Your task to perform on an android device: star an email in the gmail app Image 0: 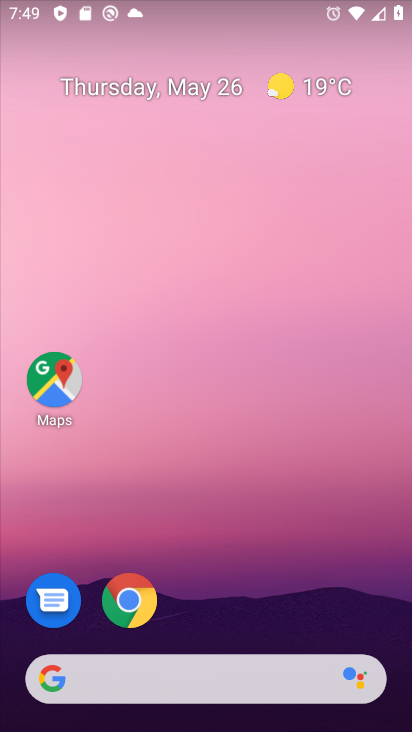
Step 0: press home button
Your task to perform on an android device: star an email in the gmail app Image 1: 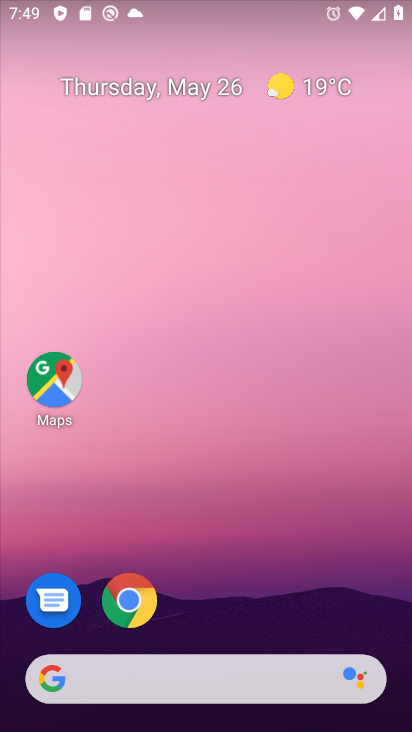
Step 1: click (51, 380)
Your task to perform on an android device: star an email in the gmail app Image 2: 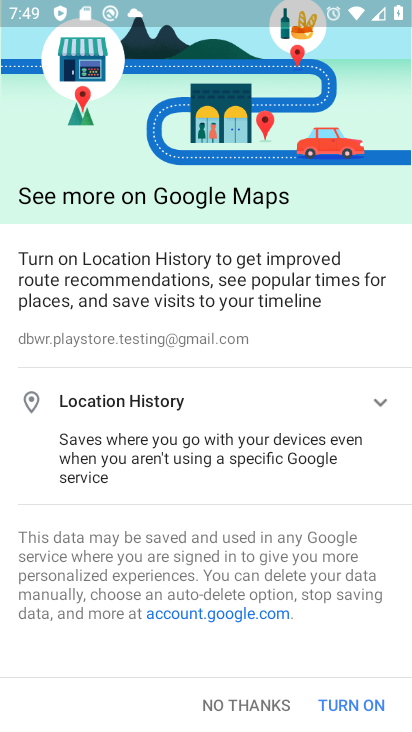
Step 2: press home button
Your task to perform on an android device: star an email in the gmail app Image 3: 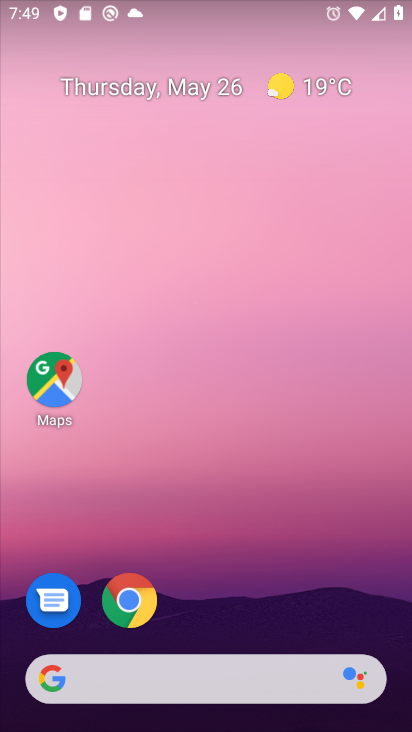
Step 3: drag from (237, 612) to (270, 191)
Your task to perform on an android device: star an email in the gmail app Image 4: 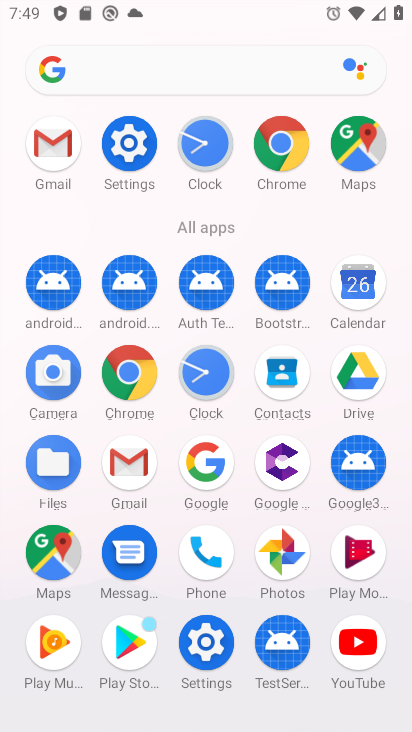
Step 4: click (56, 152)
Your task to perform on an android device: star an email in the gmail app Image 5: 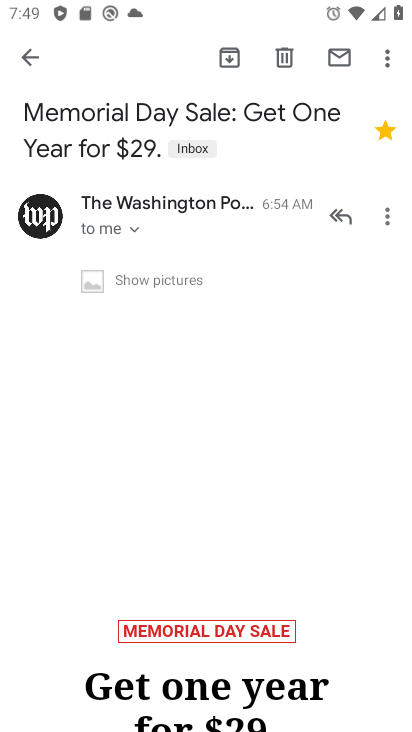
Step 5: click (32, 59)
Your task to perform on an android device: star an email in the gmail app Image 6: 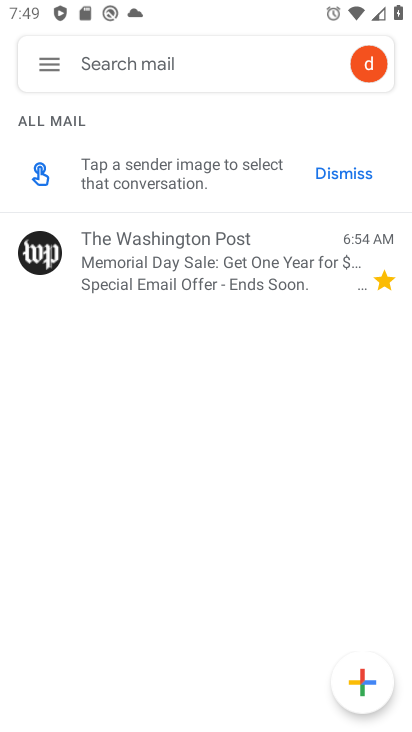
Step 6: click (45, 70)
Your task to perform on an android device: star an email in the gmail app Image 7: 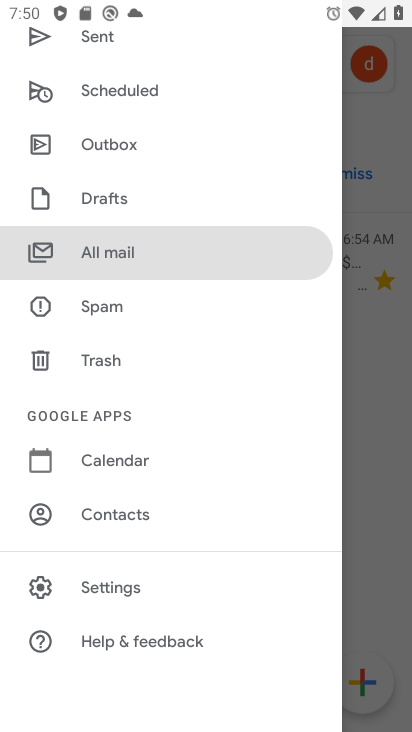
Step 7: click (134, 250)
Your task to perform on an android device: star an email in the gmail app Image 8: 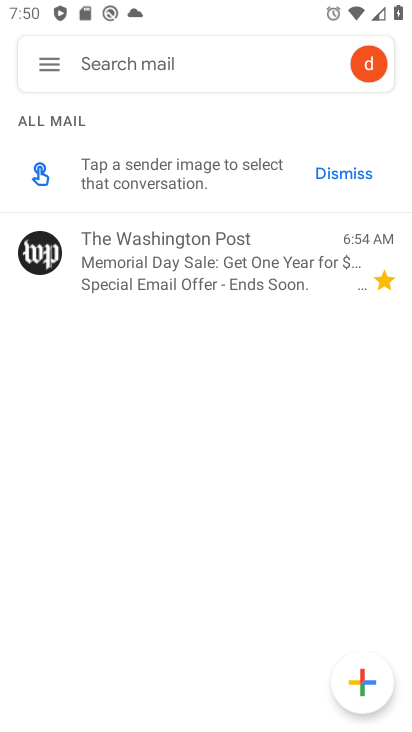
Step 8: click (388, 284)
Your task to perform on an android device: star an email in the gmail app Image 9: 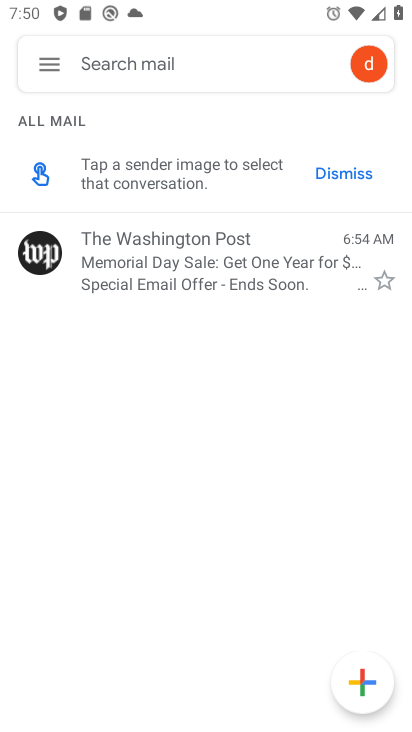
Step 9: click (386, 284)
Your task to perform on an android device: star an email in the gmail app Image 10: 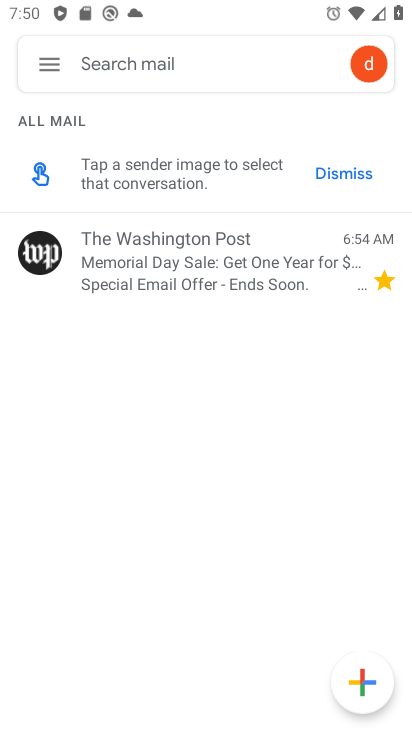
Step 10: task complete